Your task to perform on an android device: Is it going to rain today? Image 0: 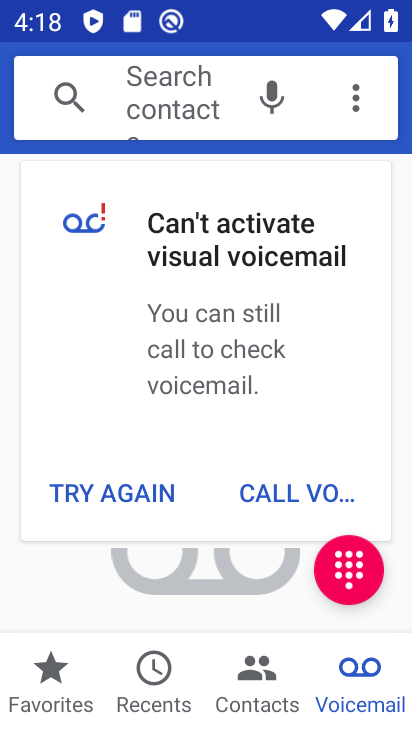
Step 0: press home button
Your task to perform on an android device: Is it going to rain today? Image 1: 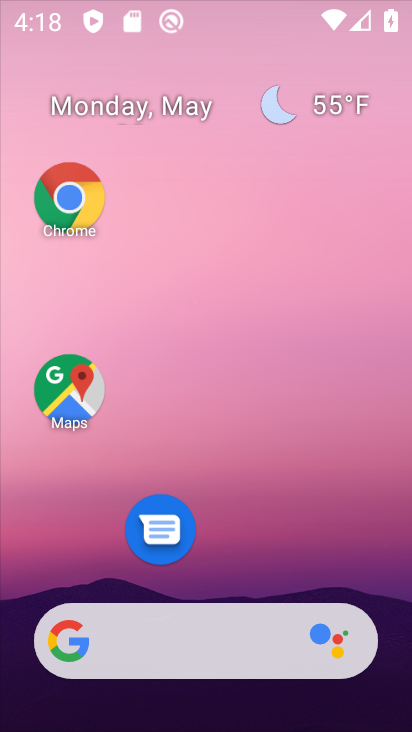
Step 1: drag from (217, 690) to (288, 142)
Your task to perform on an android device: Is it going to rain today? Image 2: 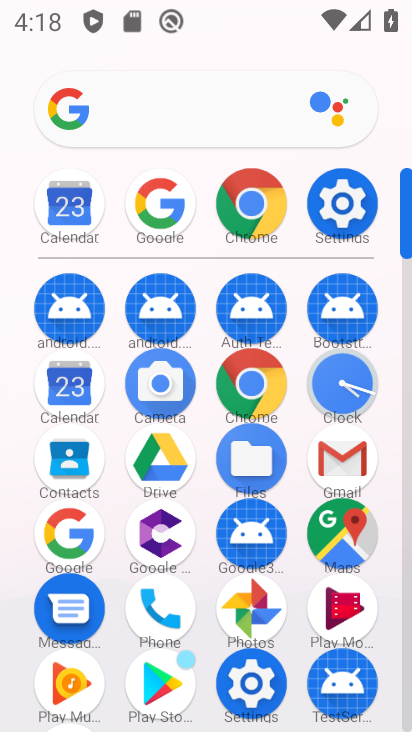
Step 2: click (73, 541)
Your task to perform on an android device: Is it going to rain today? Image 3: 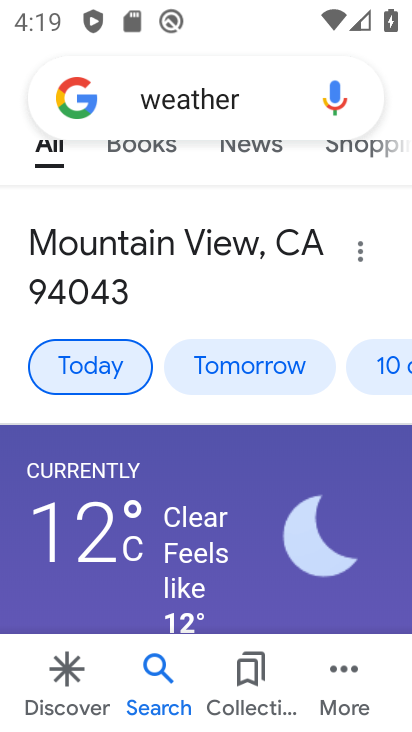
Step 3: task complete